Your task to perform on an android device: Set the phone to "Do not disturb". Image 0: 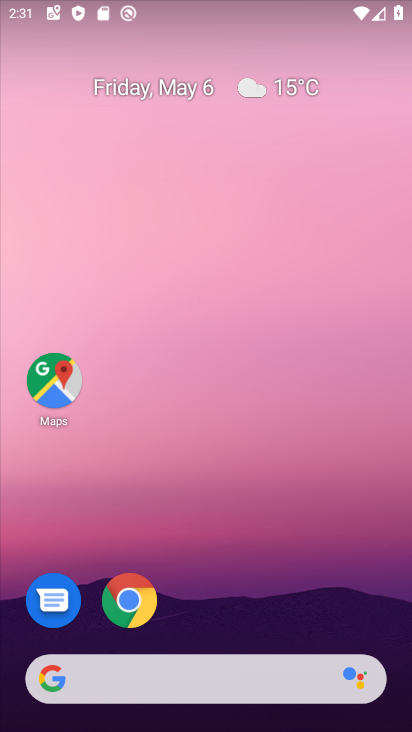
Step 0: drag from (176, 7) to (225, 469)
Your task to perform on an android device: Set the phone to "Do not disturb". Image 1: 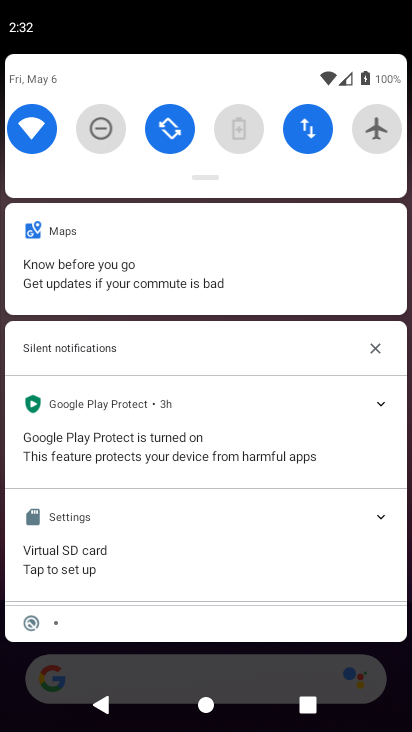
Step 1: click (109, 122)
Your task to perform on an android device: Set the phone to "Do not disturb". Image 2: 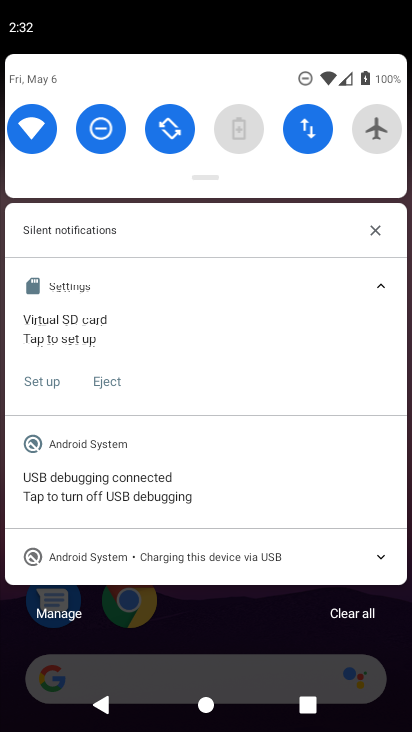
Step 2: task complete